Your task to perform on an android device: turn off sleep mode Image 0: 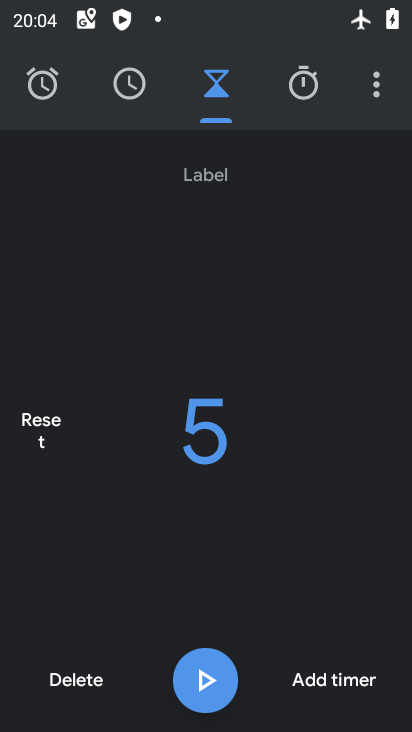
Step 0: press home button
Your task to perform on an android device: turn off sleep mode Image 1: 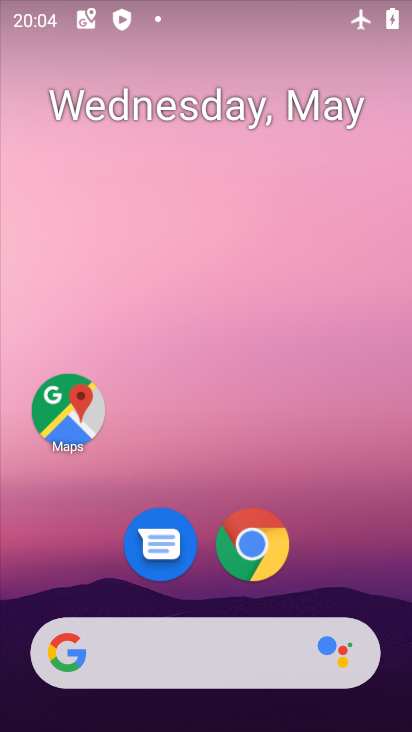
Step 1: drag from (207, 581) to (167, 193)
Your task to perform on an android device: turn off sleep mode Image 2: 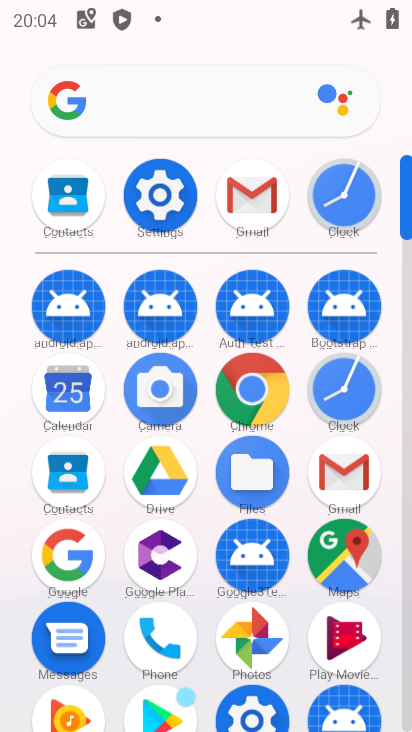
Step 2: click (189, 194)
Your task to perform on an android device: turn off sleep mode Image 3: 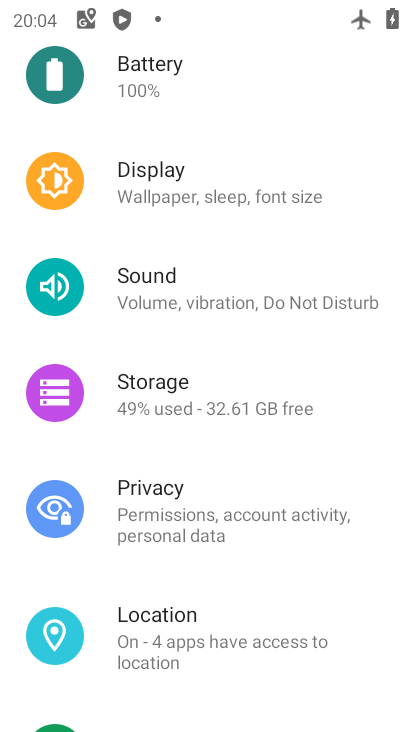
Step 3: task complete